Your task to perform on an android device: turn on the 12-hour format for clock Image 0: 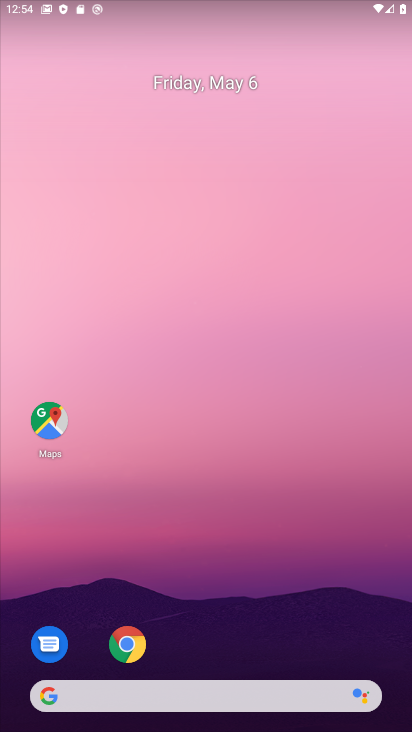
Step 0: drag from (372, 622) to (319, 210)
Your task to perform on an android device: turn on the 12-hour format for clock Image 1: 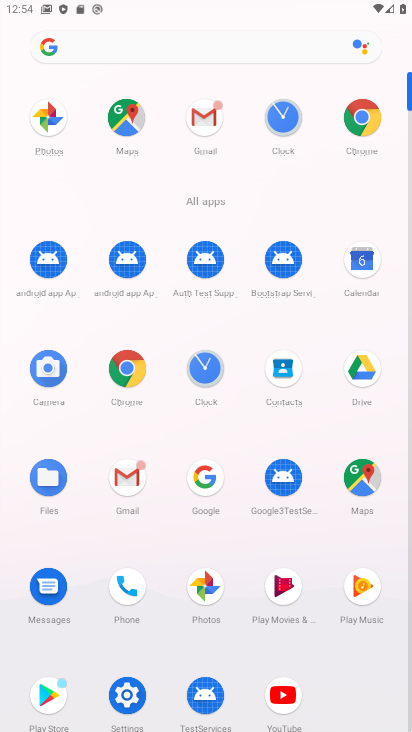
Step 1: click (203, 366)
Your task to perform on an android device: turn on the 12-hour format for clock Image 2: 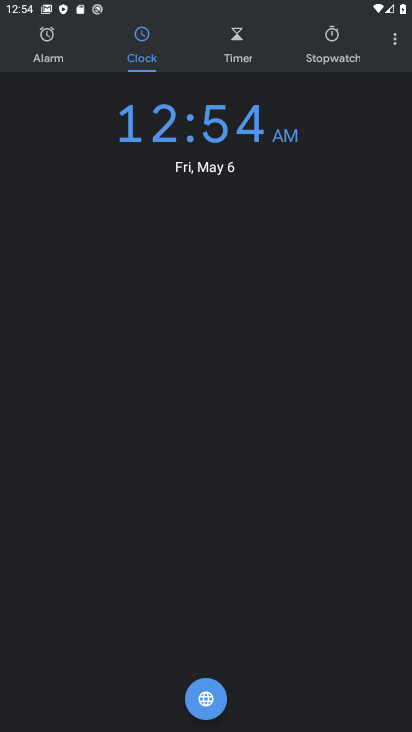
Step 2: click (395, 46)
Your task to perform on an android device: turn on the 12-hour format for clock Image 3: 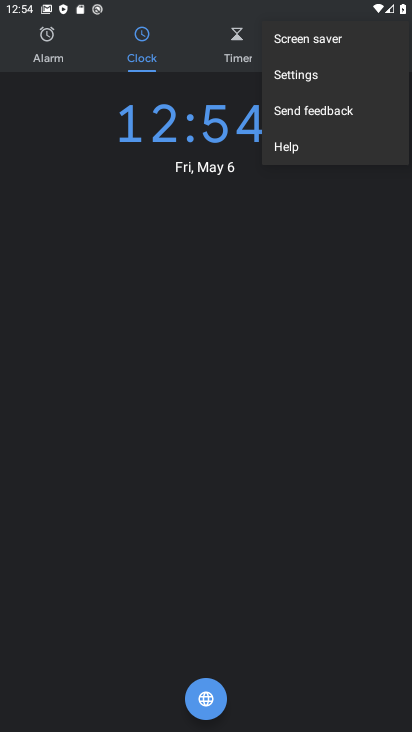
Step 3: click (281, 75)
Your task to perform on an android device: turn on the 12-hour format for clock Image 4: 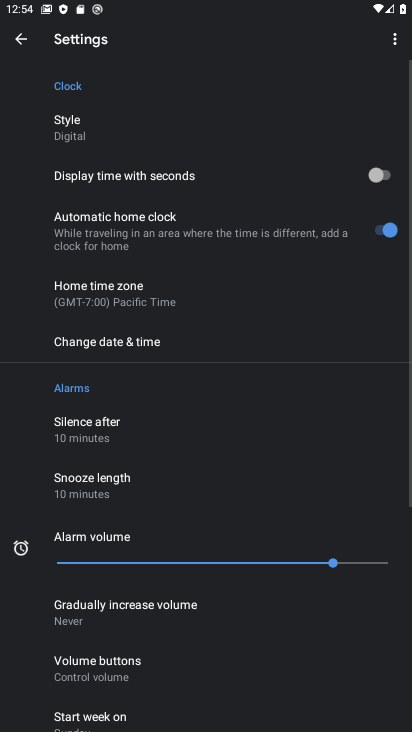
Step 4: drag from (260, 649) to (284, 369)
Your task to perform on an android device: turn on the 12-hour format for clock Image 5: 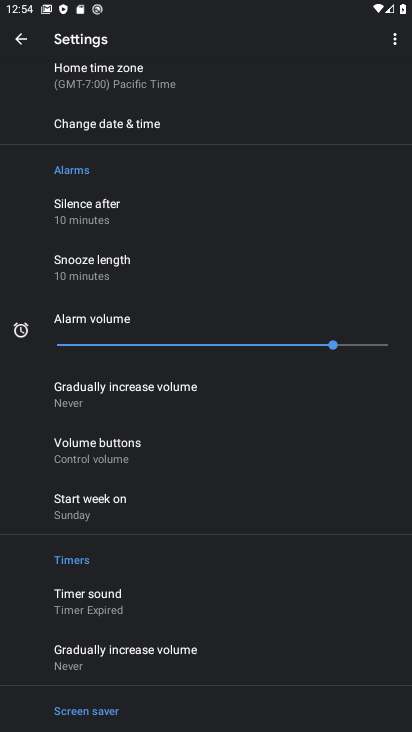
Step 5: click (164, 131)
Your task to perform on an android device: turn on the 12-hour format for clock Image 6: 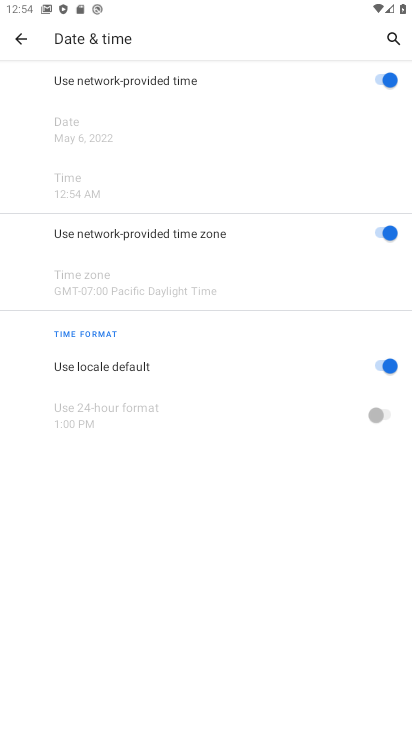
Step 6: task complete